Your task to perform on an android device: Go to CNN.com Image 0: 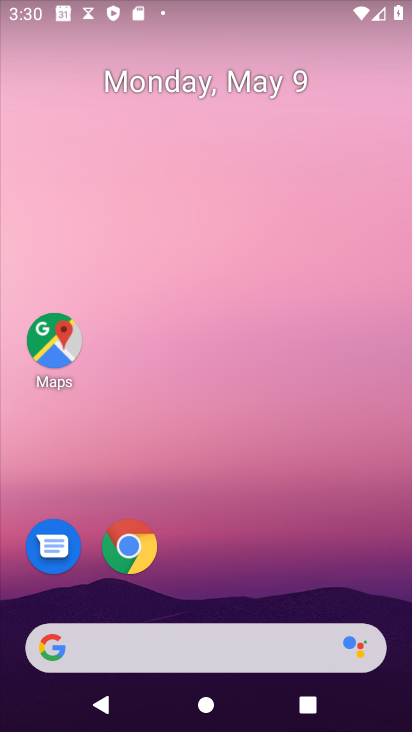
Step 0: drag from (338, 446) to (291, 134)
Your task to perform on an android device: Go to CNN.com Image 1: 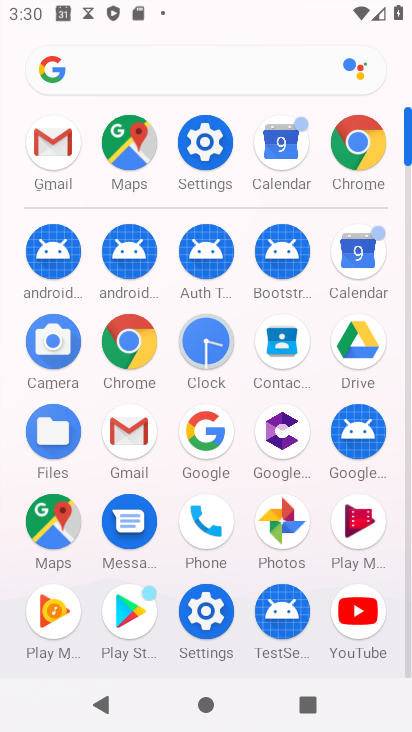
Step 1: click (353, 168)
Your task to perform on an android device: Go to CNN.com Image 2: 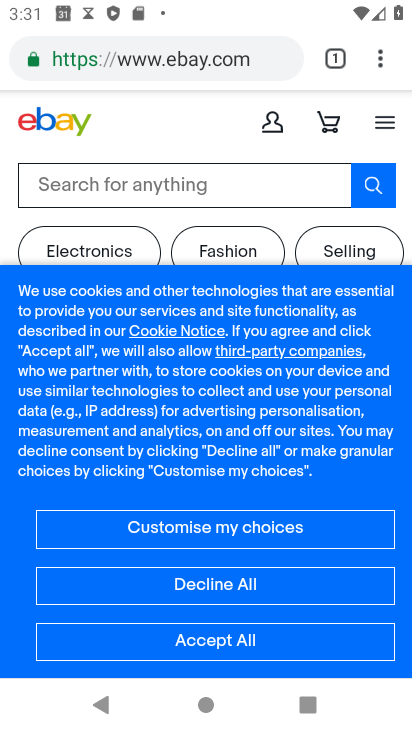
Step 2: click (154, 64)
Your task to perform on an android device: Go to CNN.com Image 3: 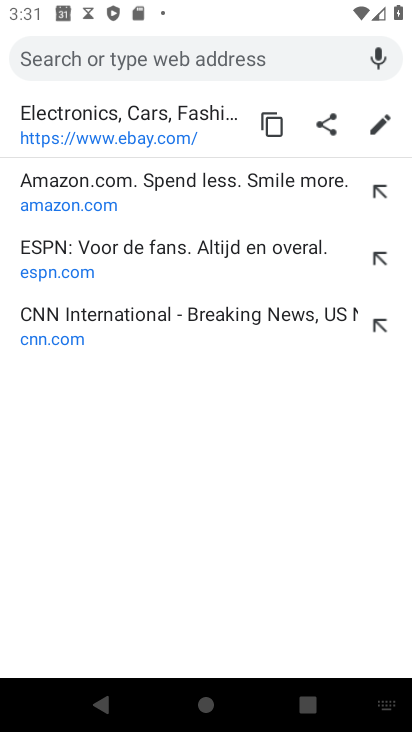
Step 3: click (140, 308)
Your task to perform on an android device: Go to CNN.com Image 4: 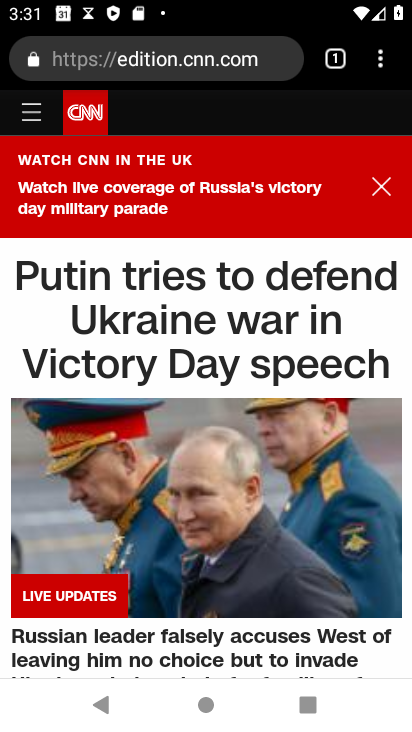
Step 4: task complete